Your task to perform on an android device: toggle notification dots Image 0: 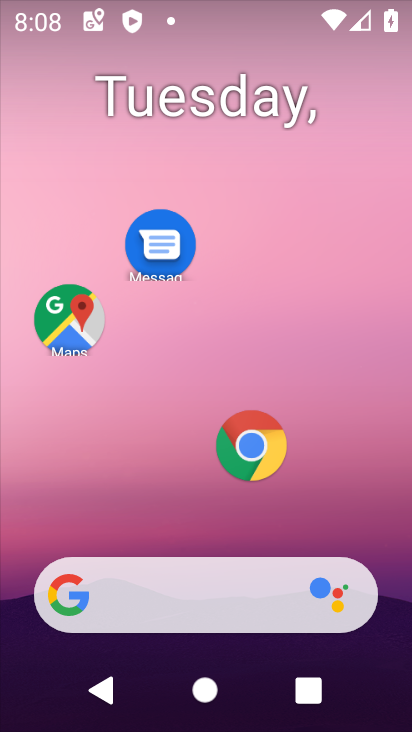
Step 0: drag from (194, 555) to (210, 291)
Your task to perform on an android device: toggle notification dots Image 1: 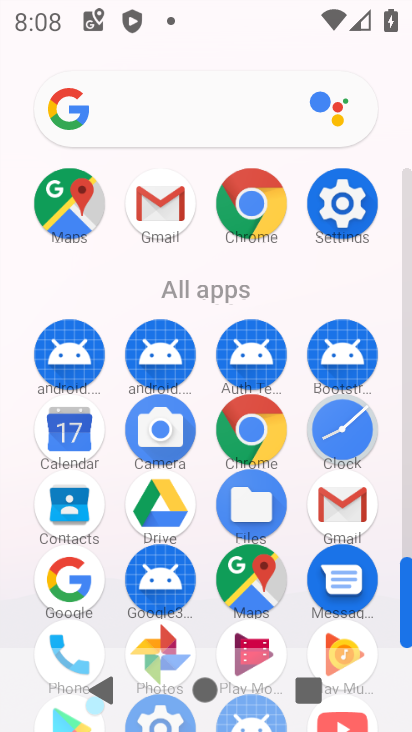
Step 1: click (357, 203)
Your task to perform on an android device: toggle notification dots Image 2: 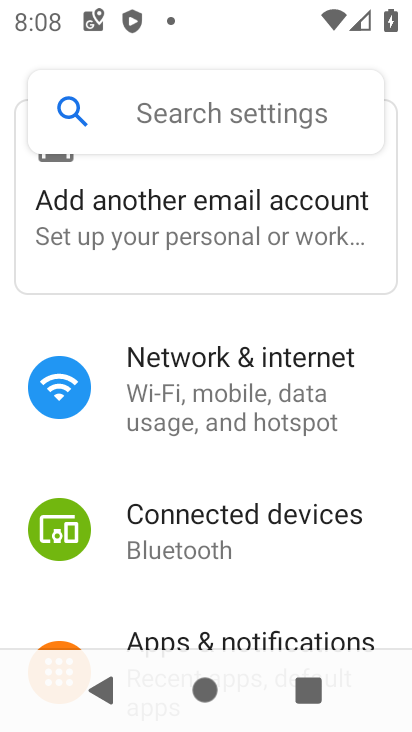
Step 2: drag from (206, 554) to (203, 288)
Your task to perform on an android device: toggle notification dots Image 3: 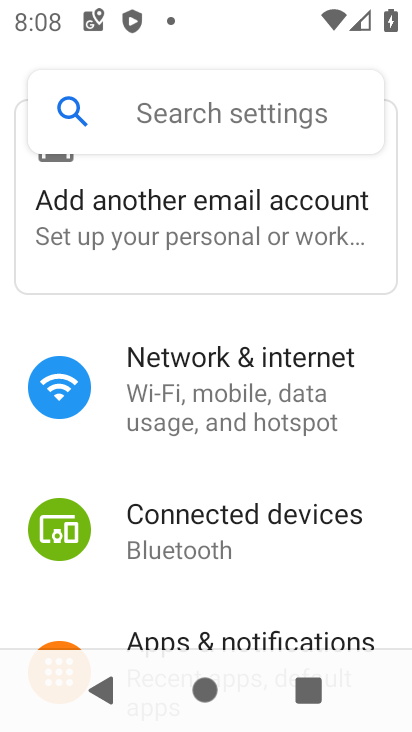
Step 3: click (195, 640)
Your task to perform on an android device: toggle notification dots Image 4: 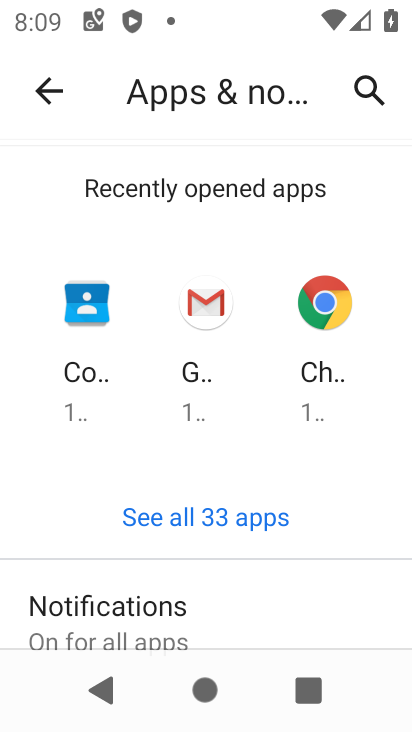
Step 4: click (164, 610)
Your task to perform on an android device: toggle notification dots Image 5: 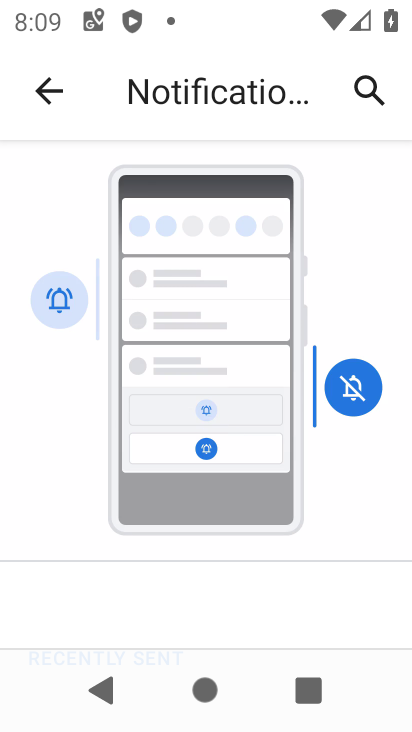
Step 5: drag from (293, 592) to (338, 184)
Your task to perform on an android device: toggle notification dots Image 6: 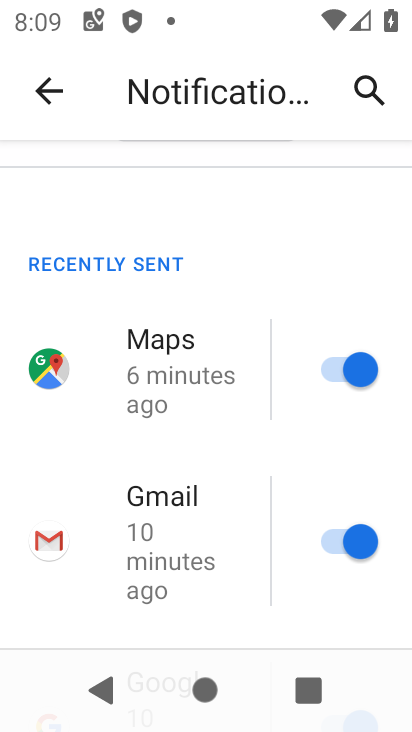
Step 6: drag from (254, 598) to (274, 171)
Your task to perform on an android device: toggle notification dots Image 7: 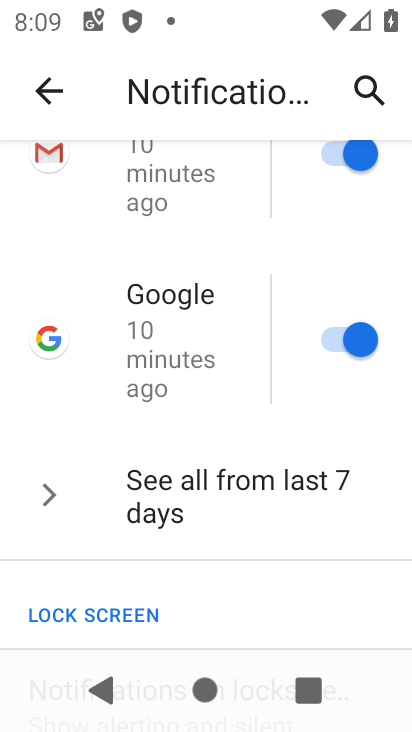
Step 7: drag from (294, 589) to (245, 235)
Your task to perform on an android device: toggle notification dots Image 8: 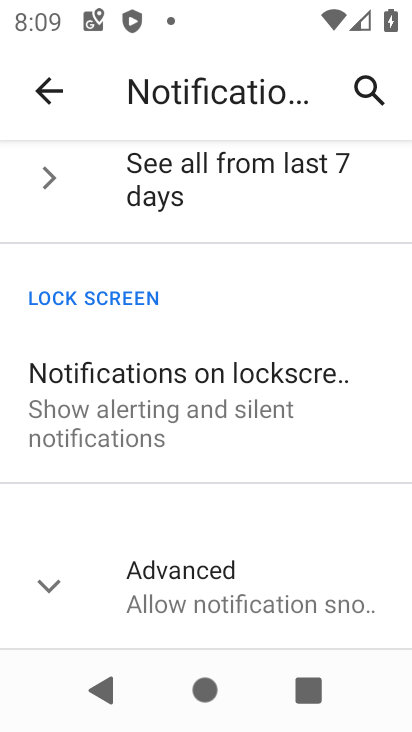
Step 8: click (209, 592)
Your task to perform on an android device: toggle notification dots Image 9: 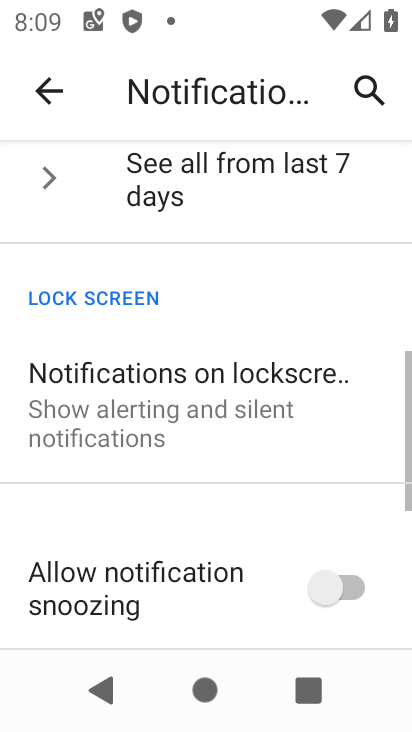
Step 9: drag from (226, 622) to (231, 275)
Your task to perform on an android device: toggle notification dots Image 10: 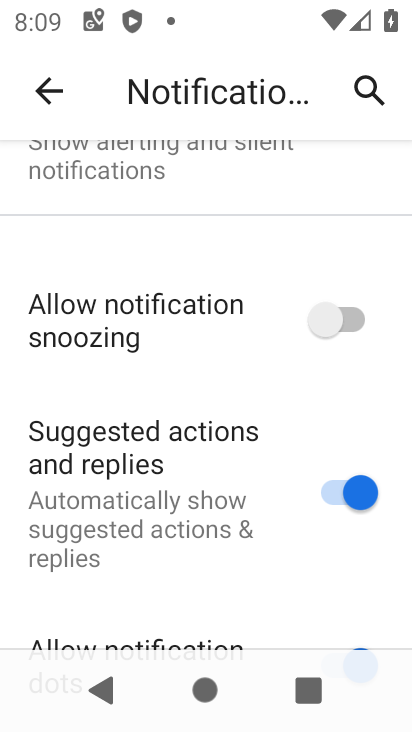
Step 10: drag from (247, 634) to (232, 329)
Your task to perform on an android device: toggle notification dots Image 11: 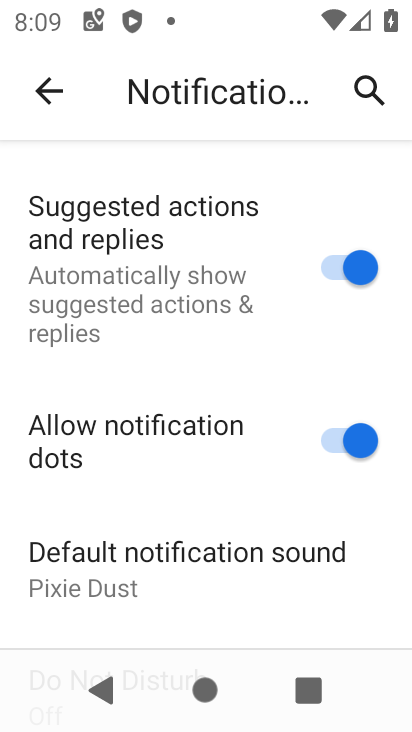
Step 11: click (323, 428)
Your task to perform on an android device: toggle notification dots Image 12: 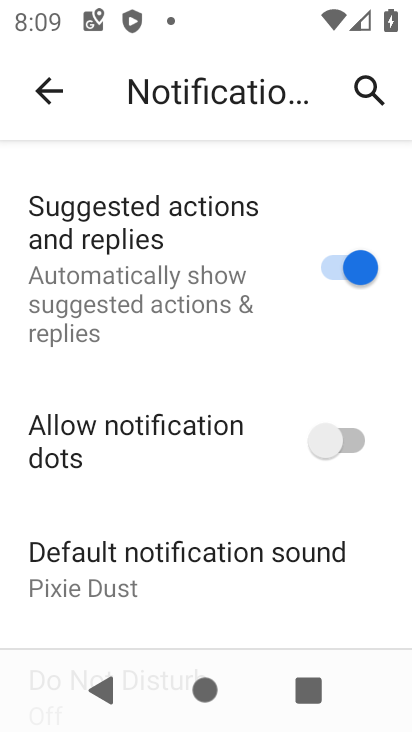
Step 12: task complete